Your task to perform on an android device: Show the shopping cart on amazon. Add "dell xps" to the cart on amazon, then select checkout. Image 0: 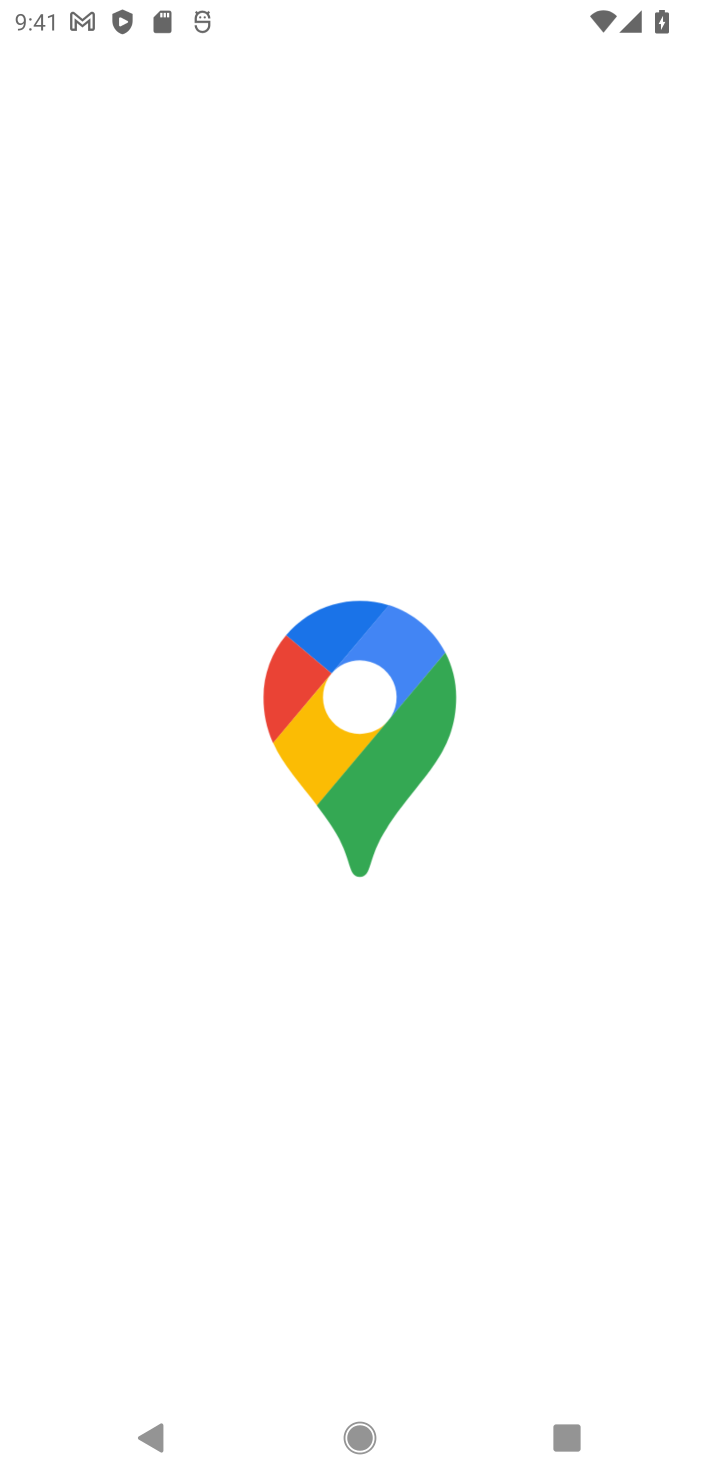
Step 0: press home button
Your task to perform on an android device: Show the shopping cart on amazon. Add "dell xps" to the cart on amazon, then select checkout. Image 1: 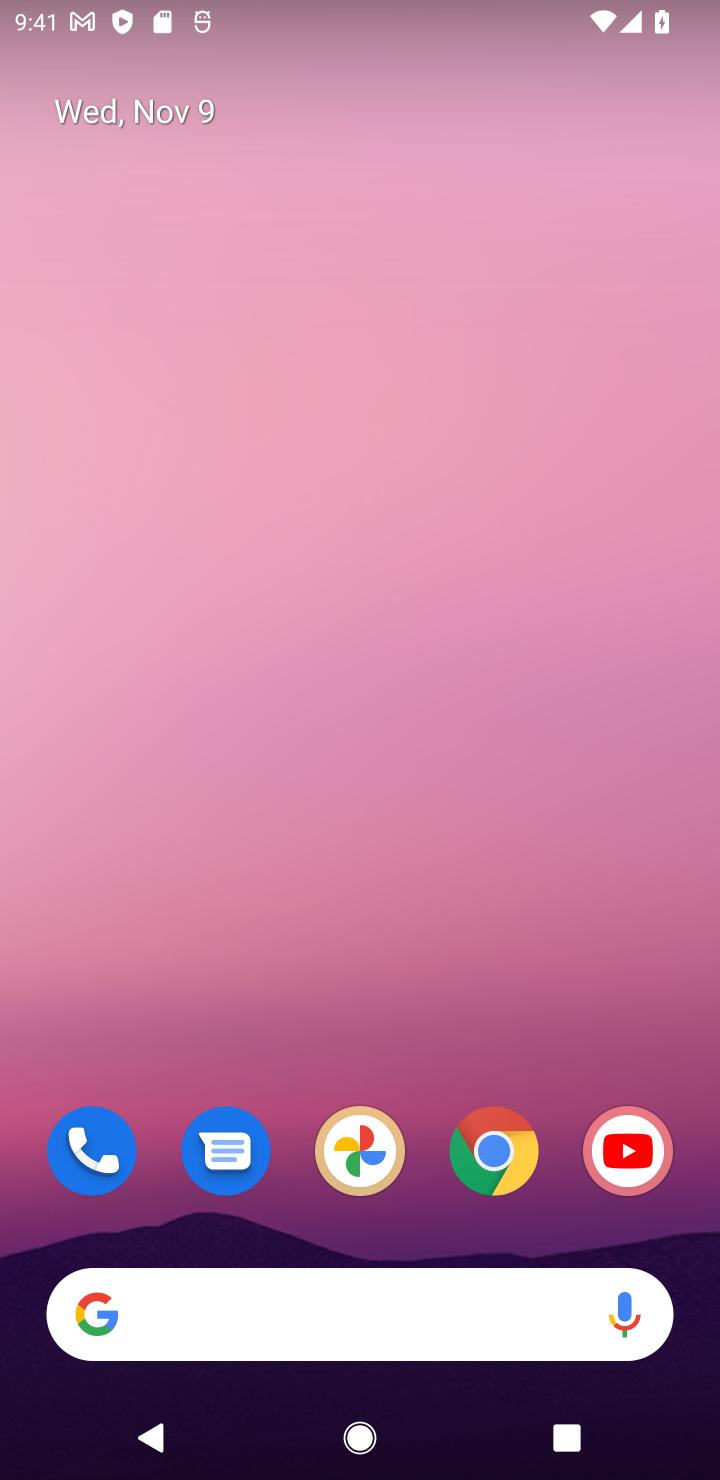
Step 1: click (495, 1121)
Your task to perform on an android device: Show the shopping cart on amazon. Add "dell xps" to the cart on amazon, then select checkout. Image 2: 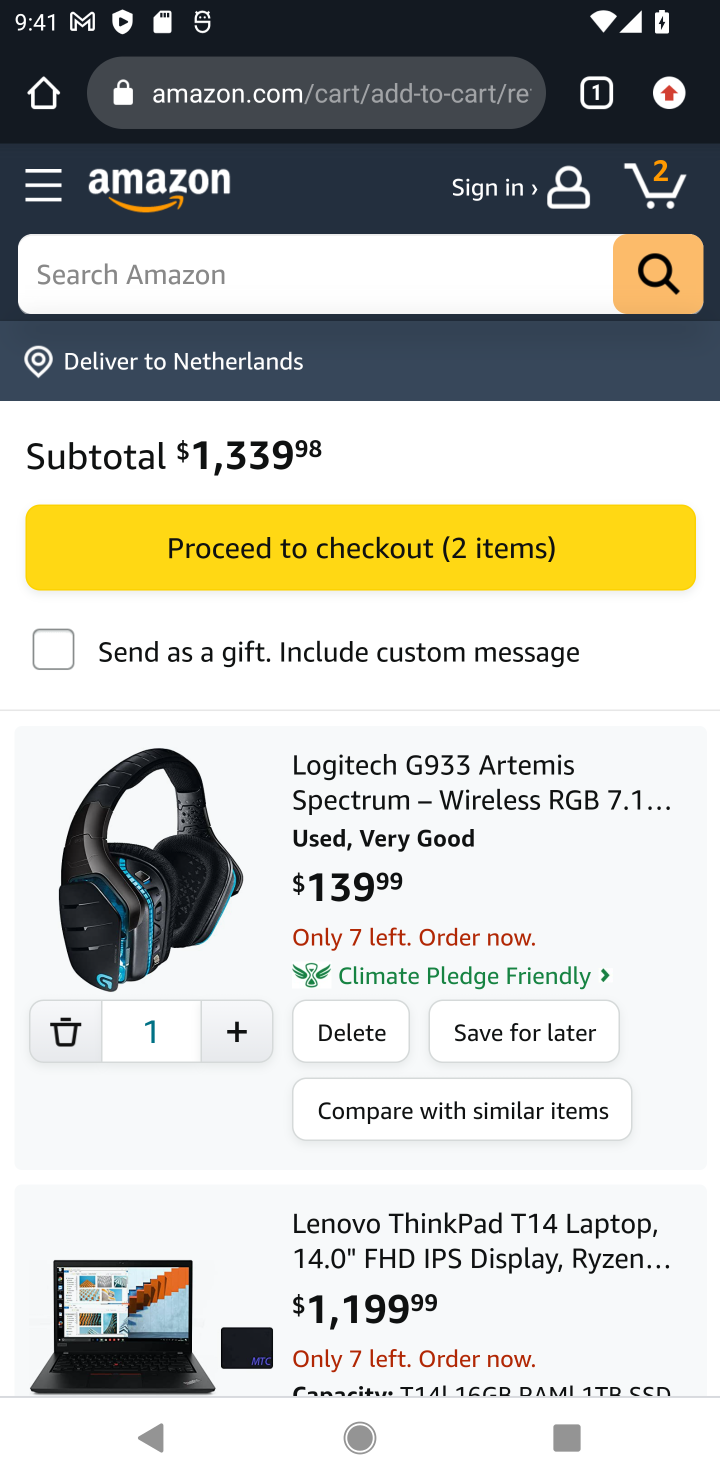
Step 2: click (655, 180)
Your task to perform on an android device: Show the shopping cart on amazon. Add "dell xps" to the cart on amazon, then select checkout. Image 3: 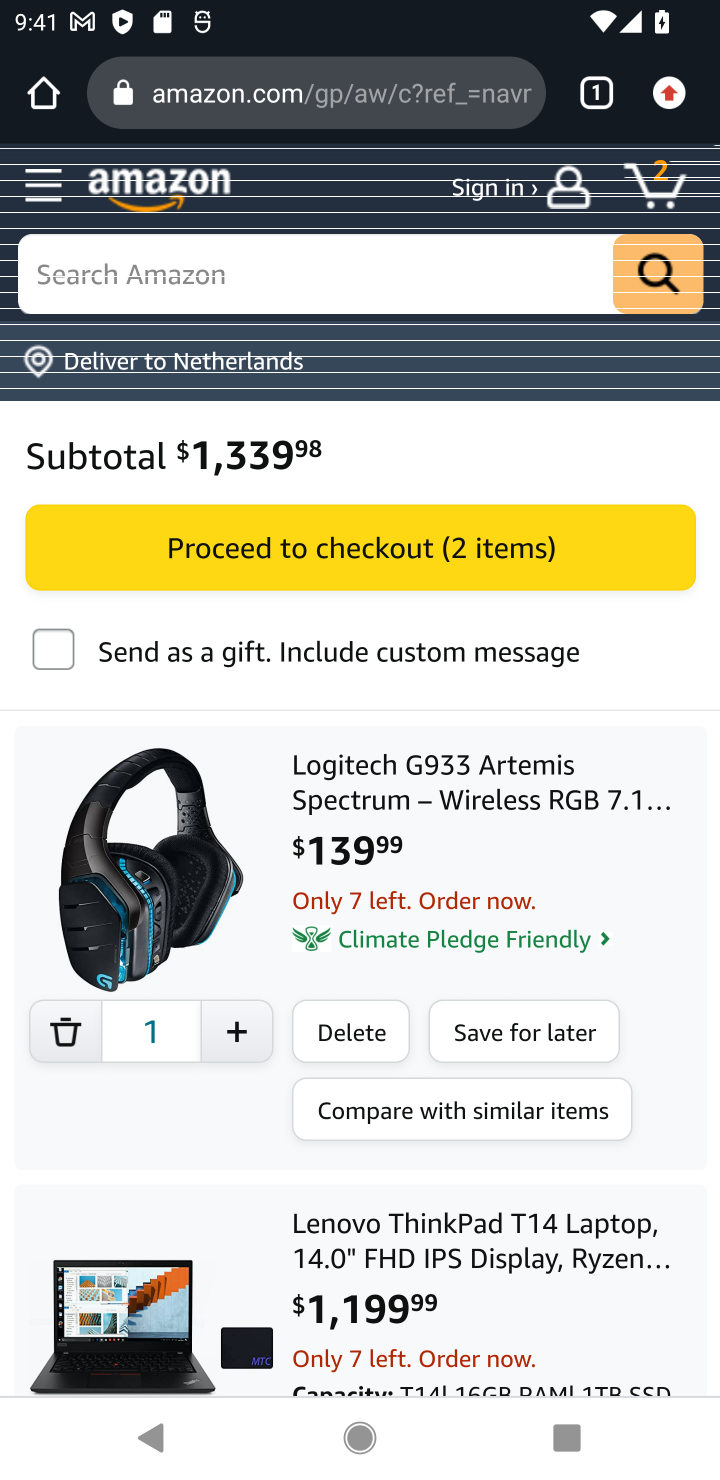
Step 3: click (350, 283)
Your task to perform on an android device: Show the shopping cart on amazon. Add "dell xps" to the cart on amazon, then select checkout. Image 4: 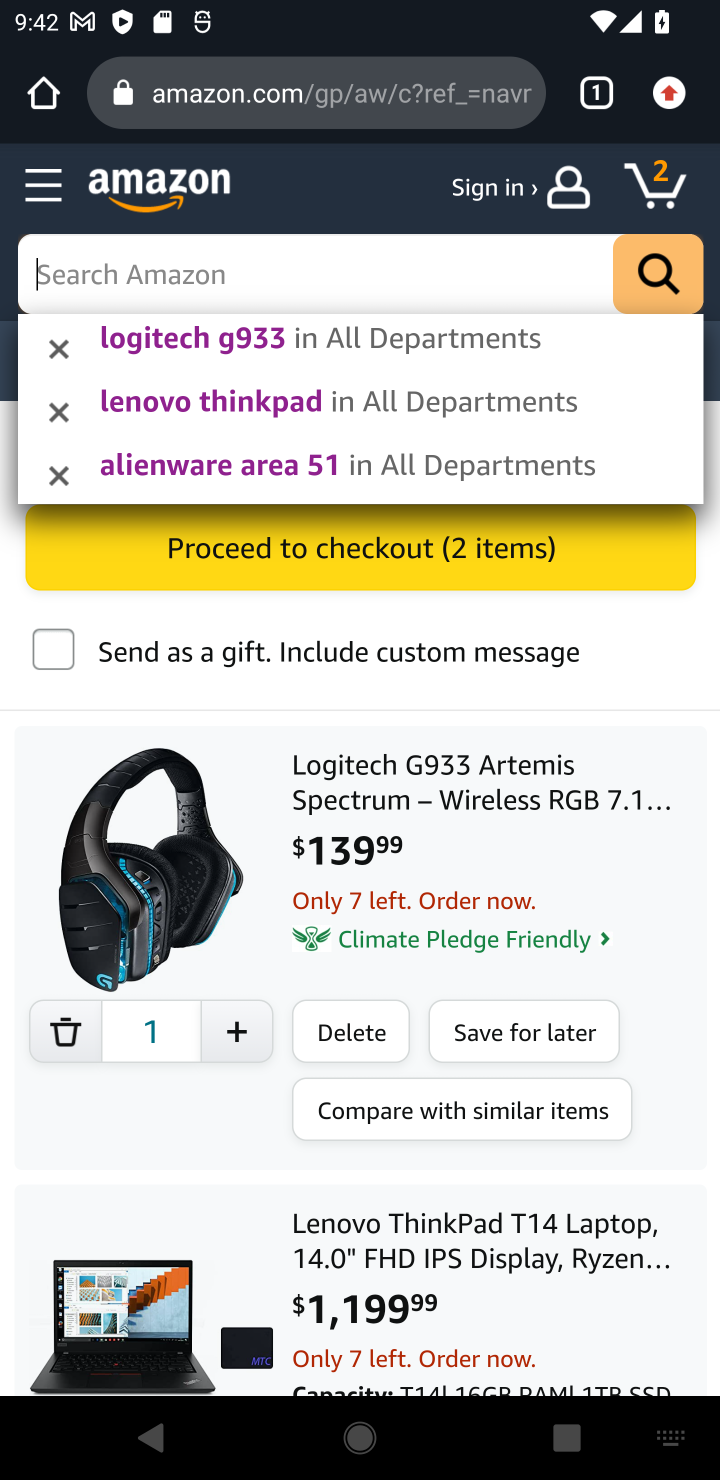
Step 4: type "dell xps"
Your task to perform on an android device: Show the shopping cart on amazon. Add "dell xps" to the cart on amazon, then select checkout. Image 5: 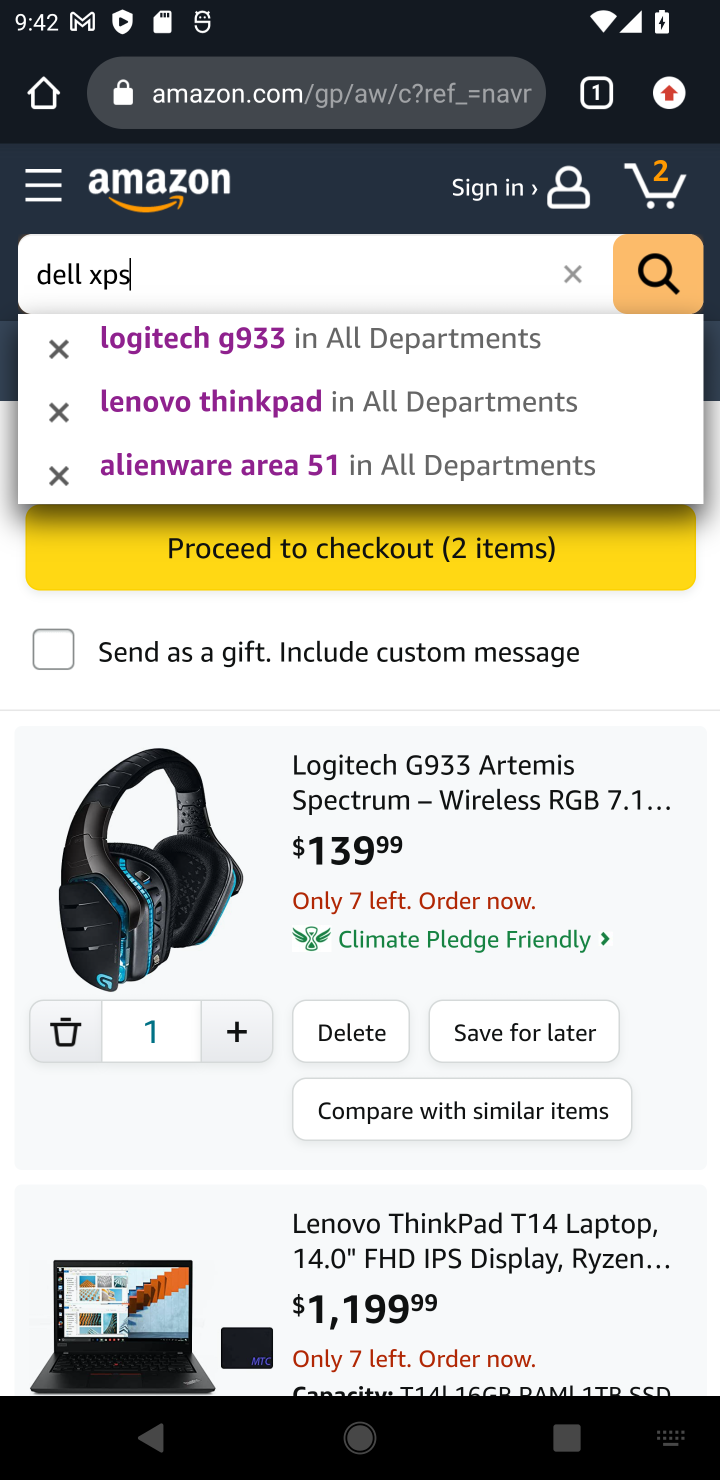
Step 5: press enter
Your task to perform on an android device: Show the shopping cart on amazon. Add "dell xps" to the cart on amazon, then select checkout. Image 6: 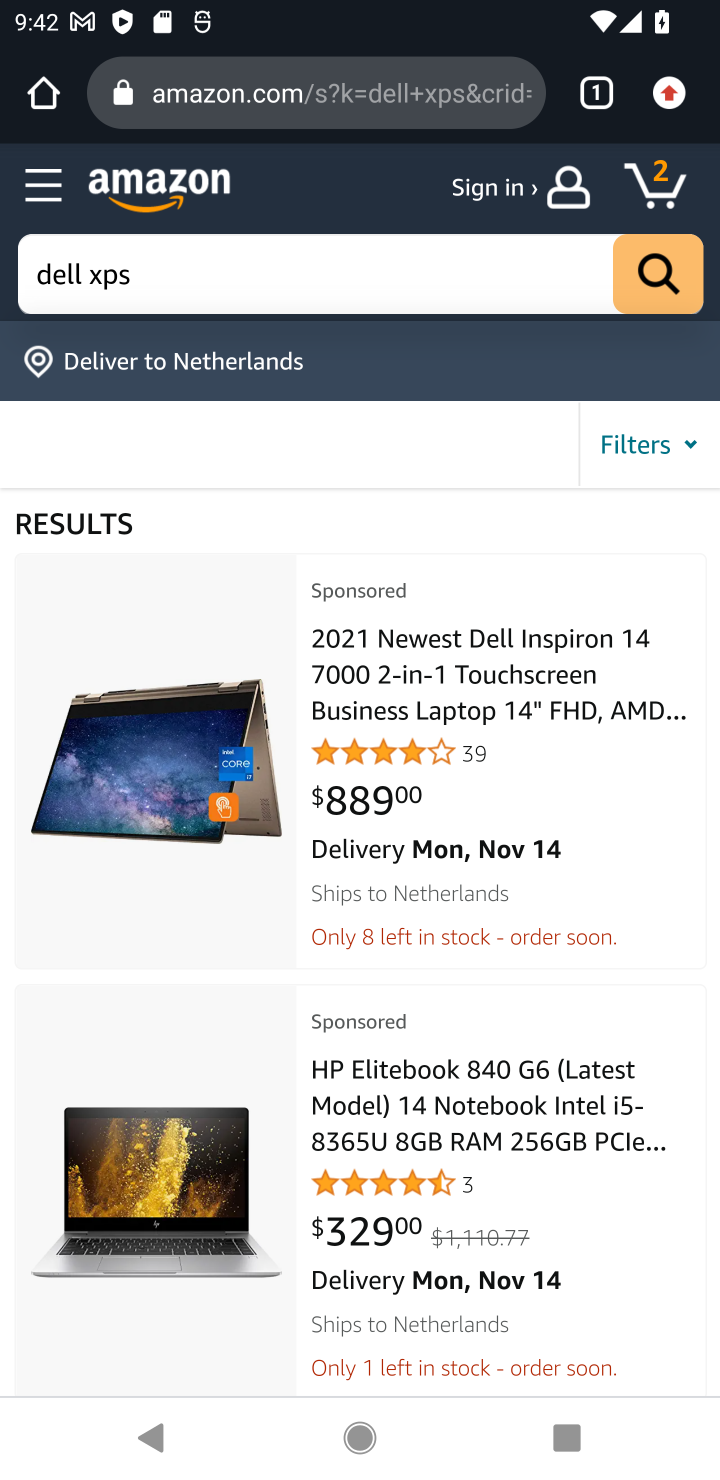
Step 6: drag from (557, 1238) to (548, 603)
Your task to perform on an android device: Show the shopping cart on amazon. Add "dell xps" to the cart on amazon, then select checkout. Image 7: 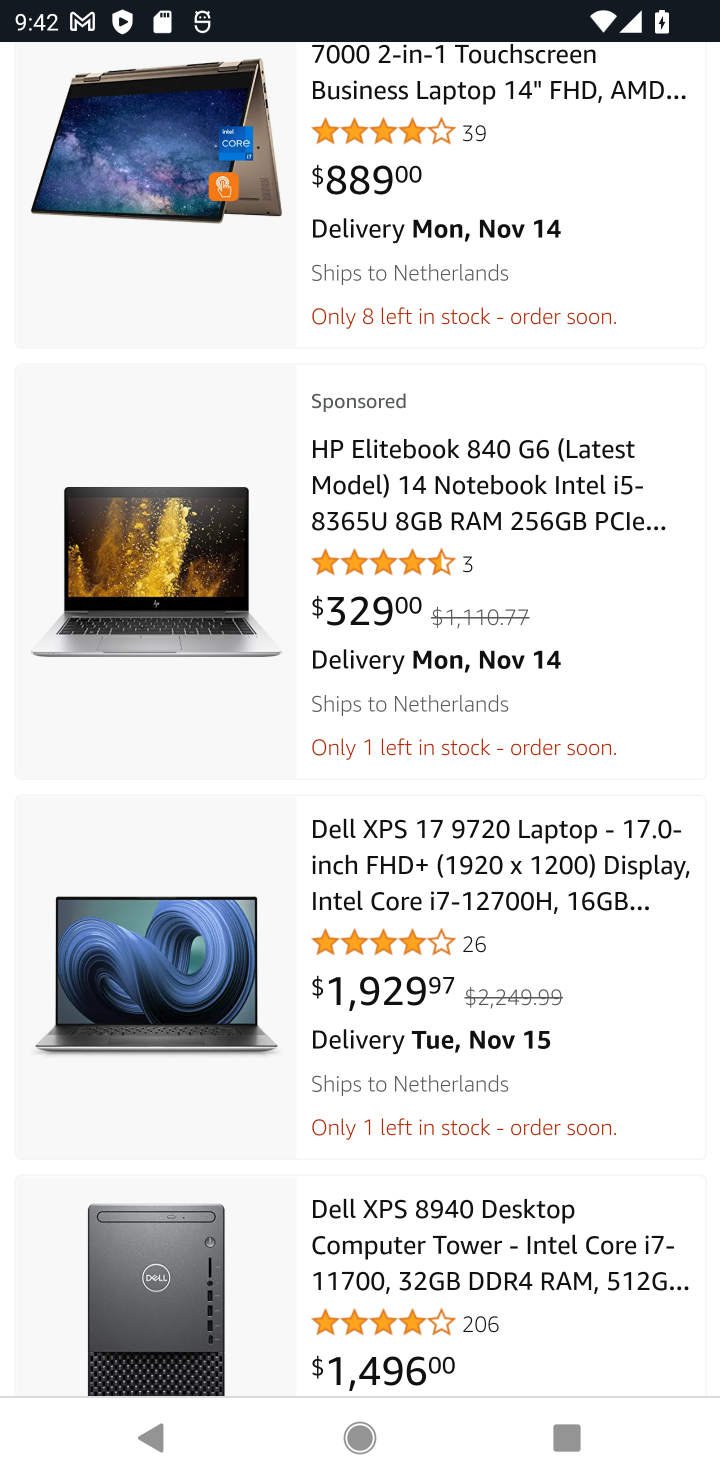
Step 7: click (167, 962)
Your task to perform on an android device: Show the shopping cart on amazon. Add "dell xps" to the cart on amazon, then select checkout. Image 8: 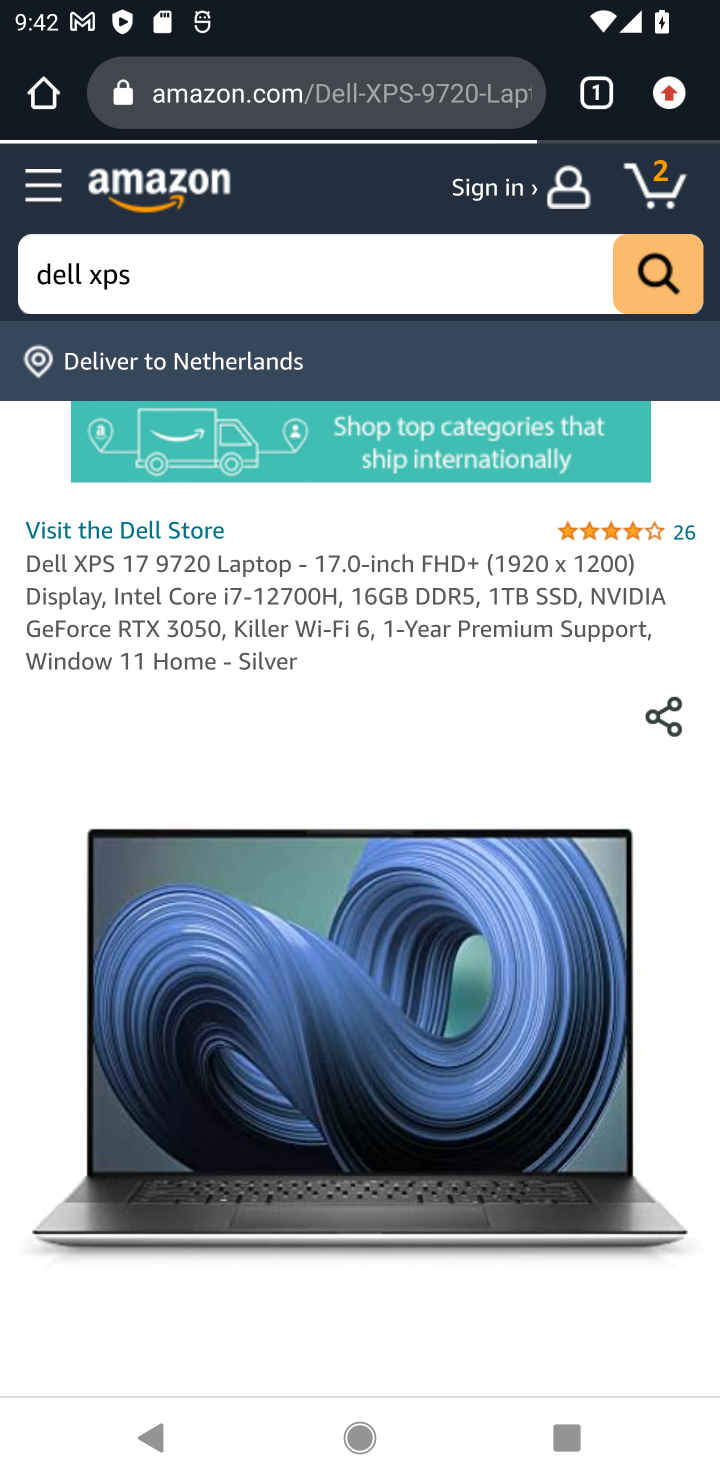
Step 8: drag from (670, 1108) to (645, 659)
Your task to perform on an android device: Show the shopping cart on amazon. Add "dell xps" to the cart on amazon, then select checkout. Image 9: 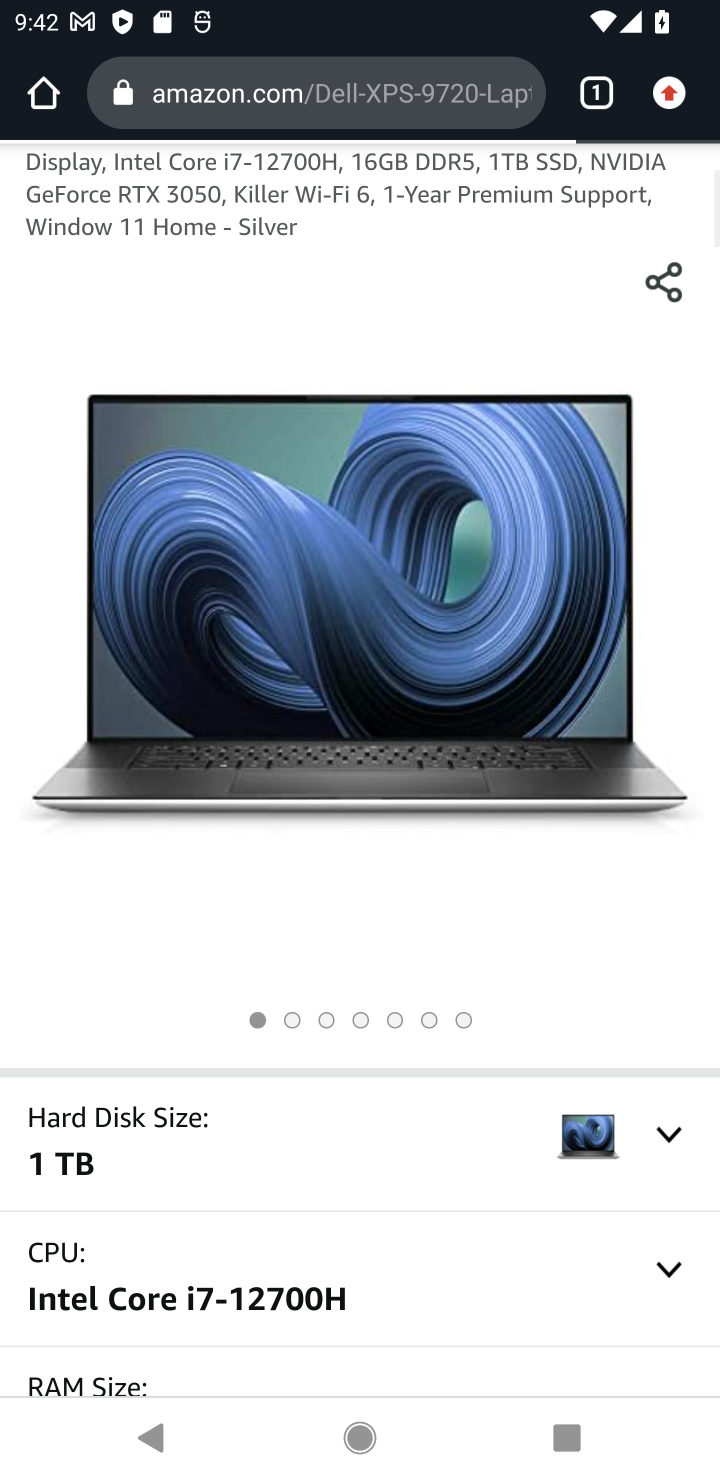
Step 9: drag from (581, 1229) to (565, 818)
Your task to perform on an android device: Show the shopping cart on amazon. Add "dell xps" to the cart on amazon, then select checkout. Image 10: 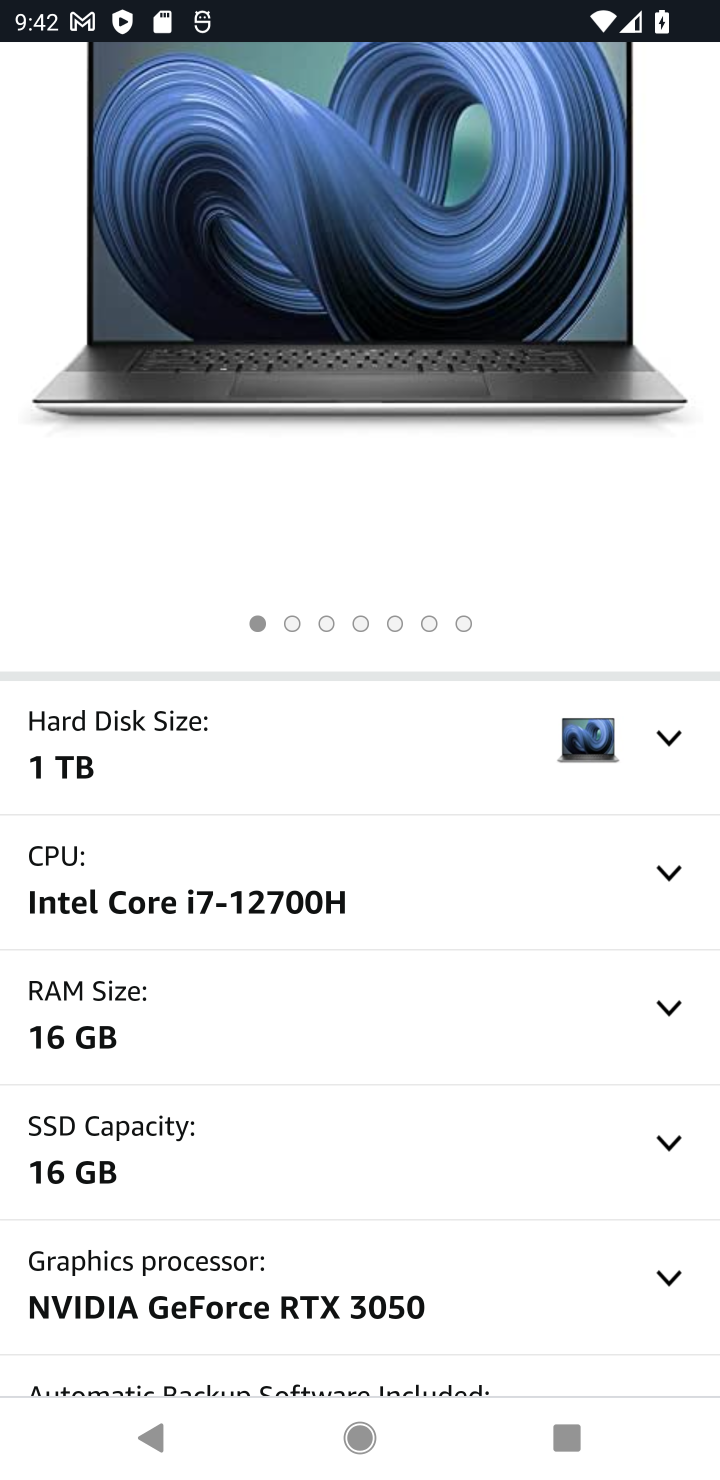
Step 10: drag from (499, 1066) to (587, 629)
Your task to perform on an android device: Show the shopping cart on amazon. Add "dell xps" to the cart on amazon, then select checkout. Image 11: 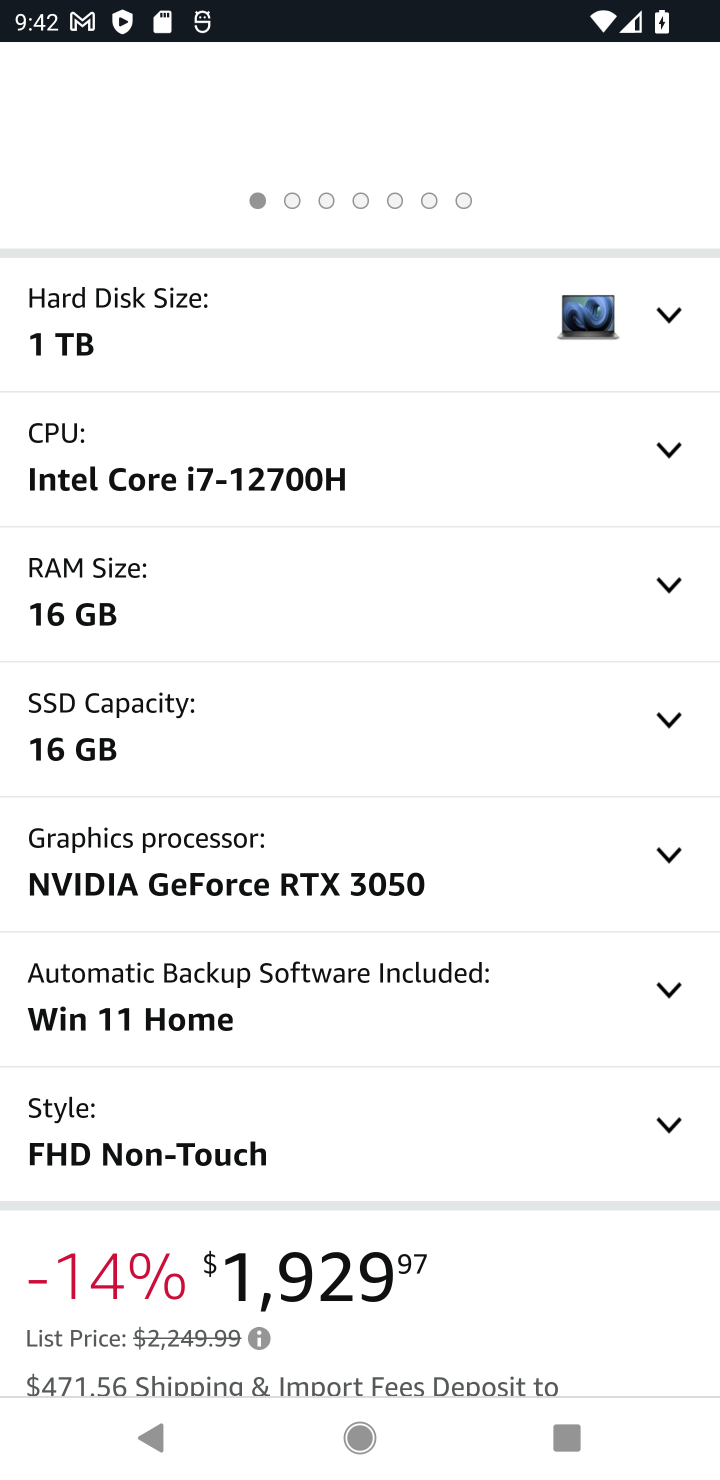
Step 11: drag from (476, 1116) to (602, 556)
Your task to perform on an android device: Show the shopping cart on amazon. Add "dell xps" to the cart on amazon, then select checkout. Image 12: 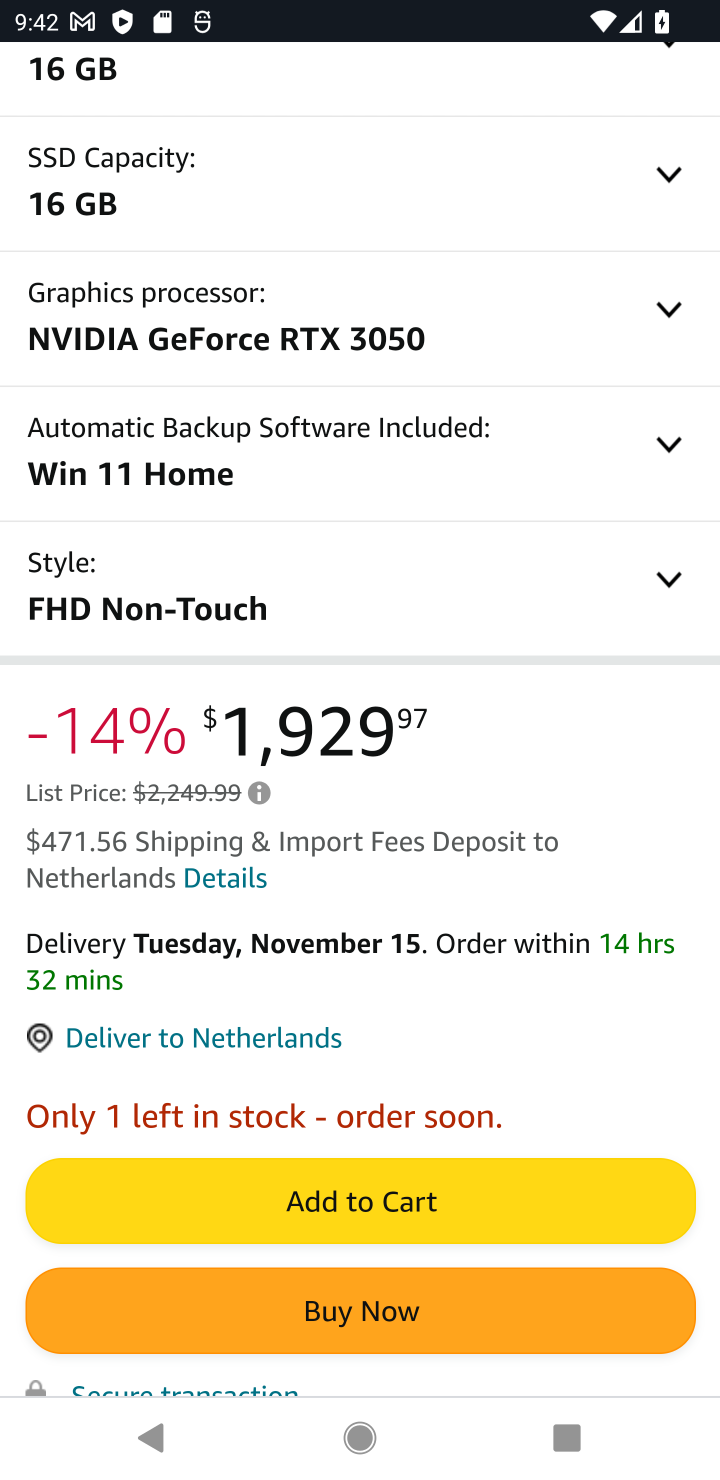
Step 12: click (383, 1217)
Your task to perform on an android device: Show the shopping cart on amazon. Add "dell xps" to the cart on amazon, then select checkout. Image 13: 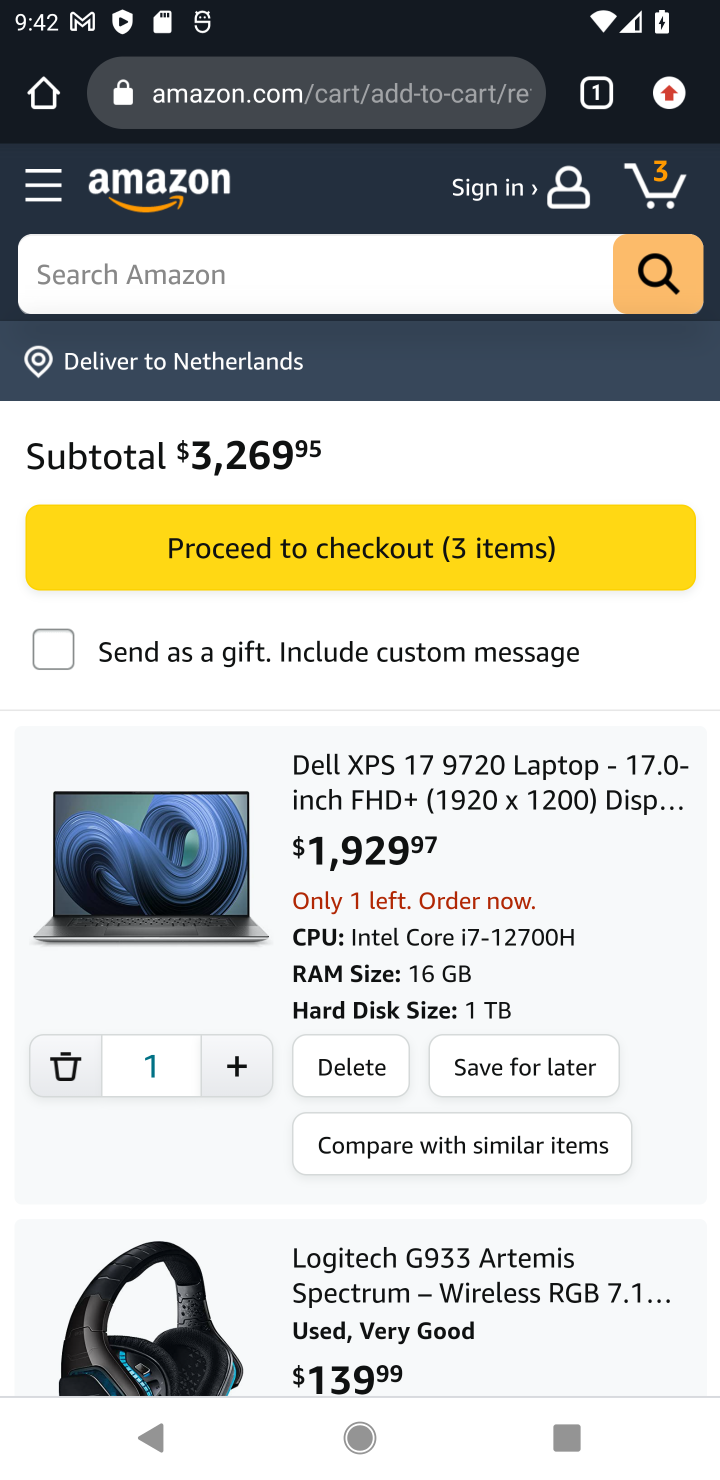
Step 13: click (263, 542)
Your task to perform on an android device: Show the shopping cart on amazon. Add "dell xps" to the cart on amazon, then select checkout. Image 14: 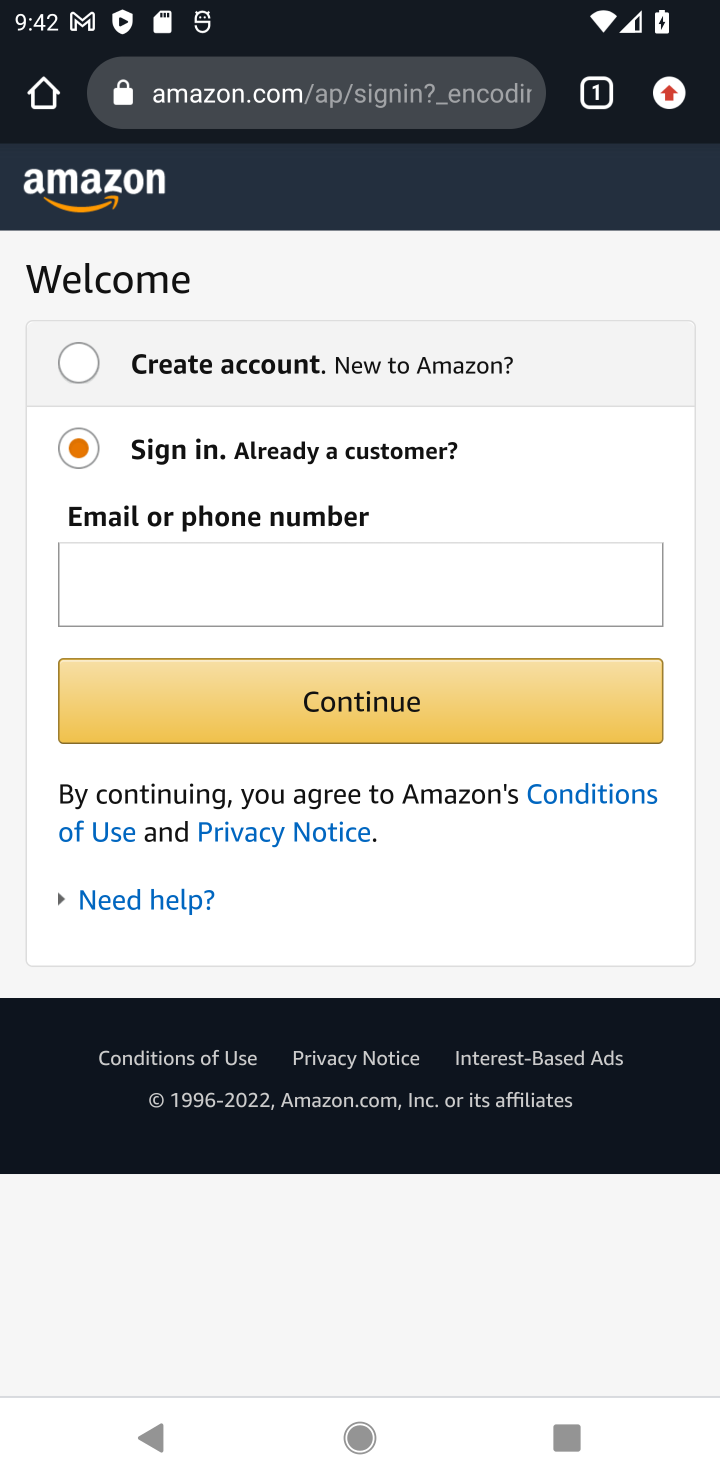
Step 14: task complete